Your task to perform on an android device: check the backup settings in the google photos Image 0: 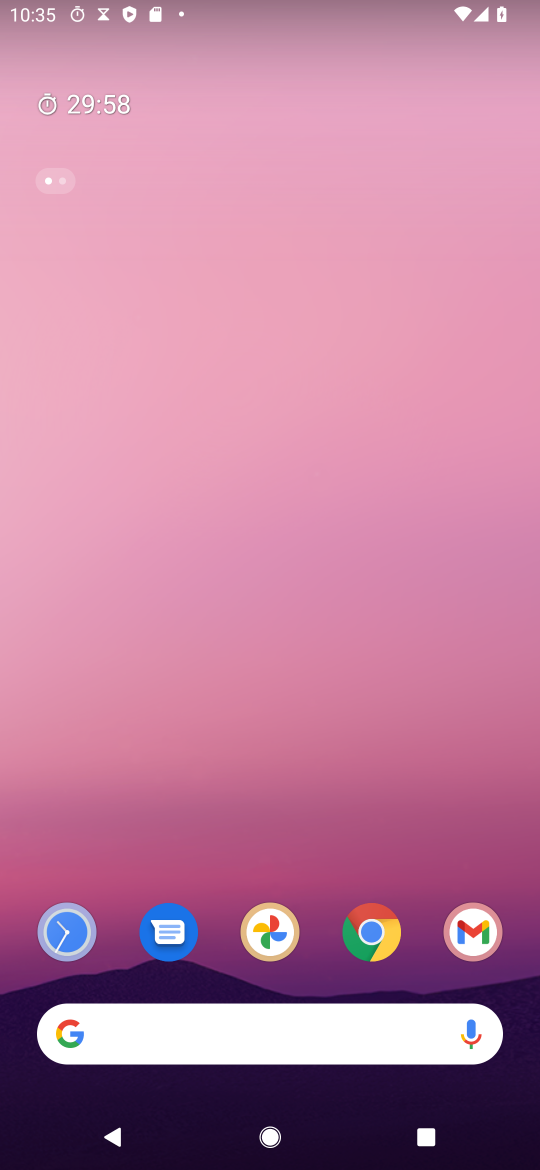
Step 0: drag from (332, 809) to (268, 86)
Your task to perform on an android device: check the backup settings in the google photos Image 1: 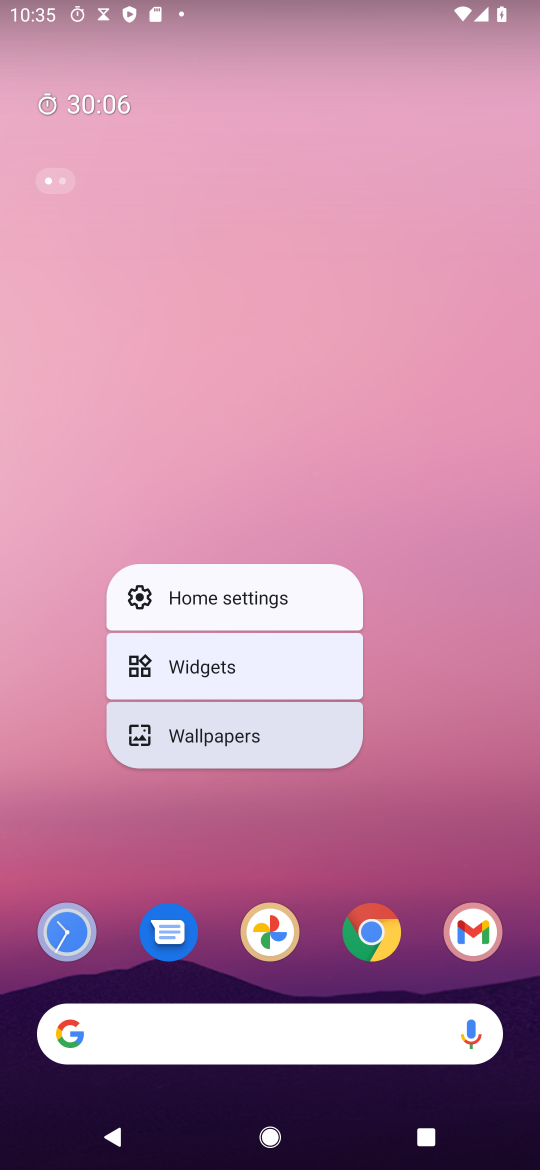
Step 1: click (280, 924)
Your task to perform on an android device: check the backup settings in the google photos Image 2: 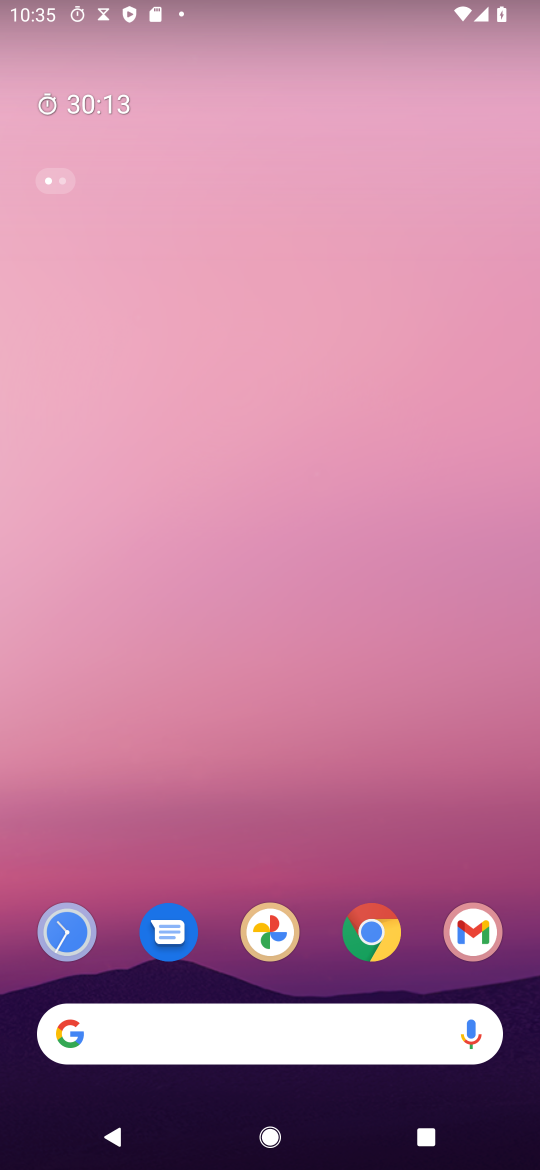
Step 2: click (274, 945)
Your task to perform on an android device: check the backup settings in the google photos Image 3: 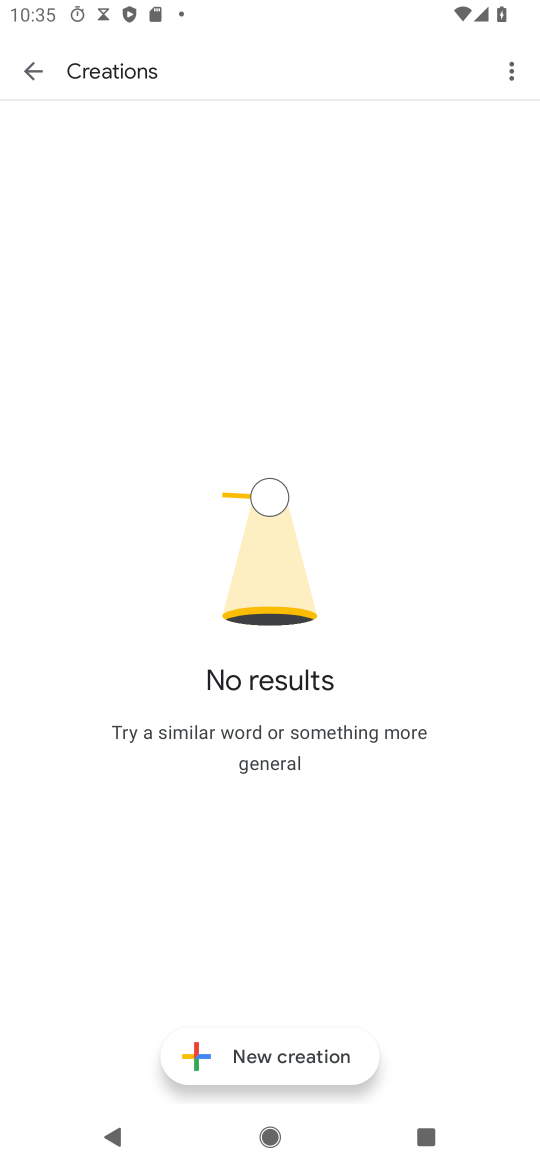
Step 3: click (36, 67)
Your task to perform on an android device: check the backup settings in the google photos Image 4: 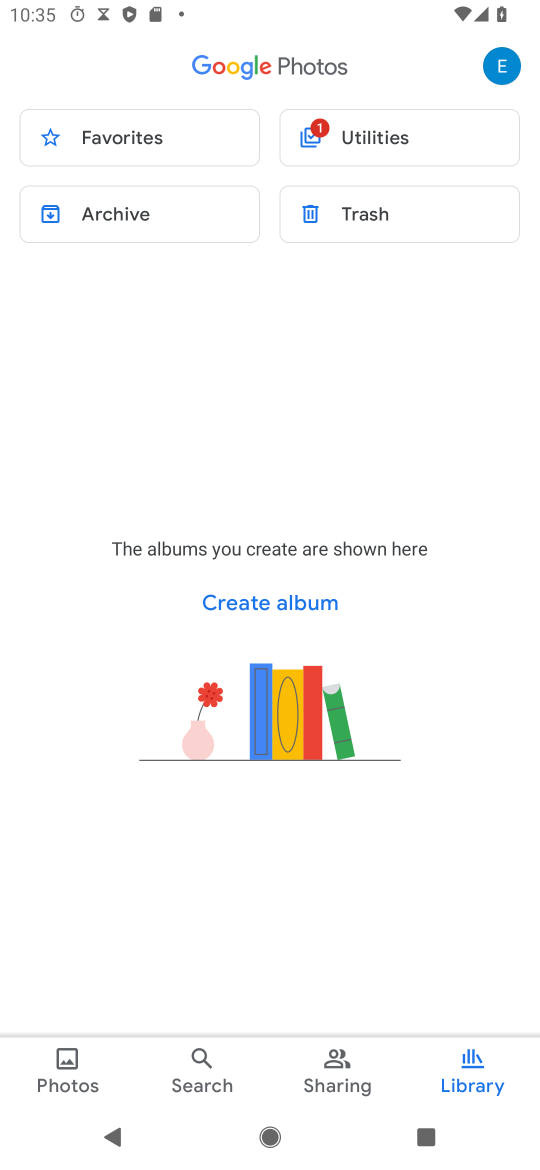
Step 4: click (521, 70)
Your task to perform on an android device: check the backup settings in the google photos Image 5: 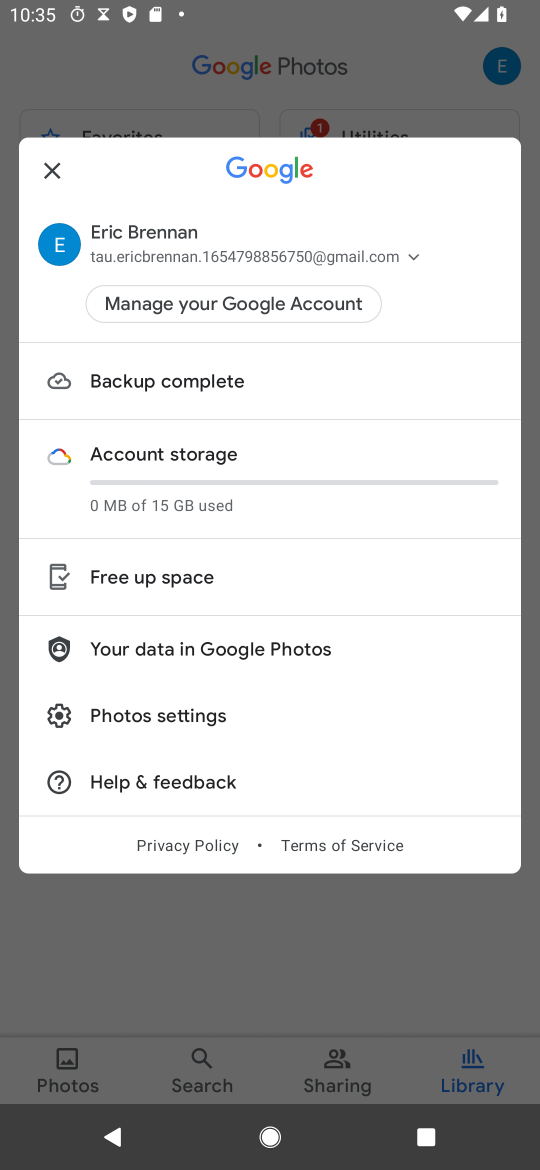
Step 5: click (194, 709)
Your task to perform on an android device: check the backup settings in the google photos Image 6: 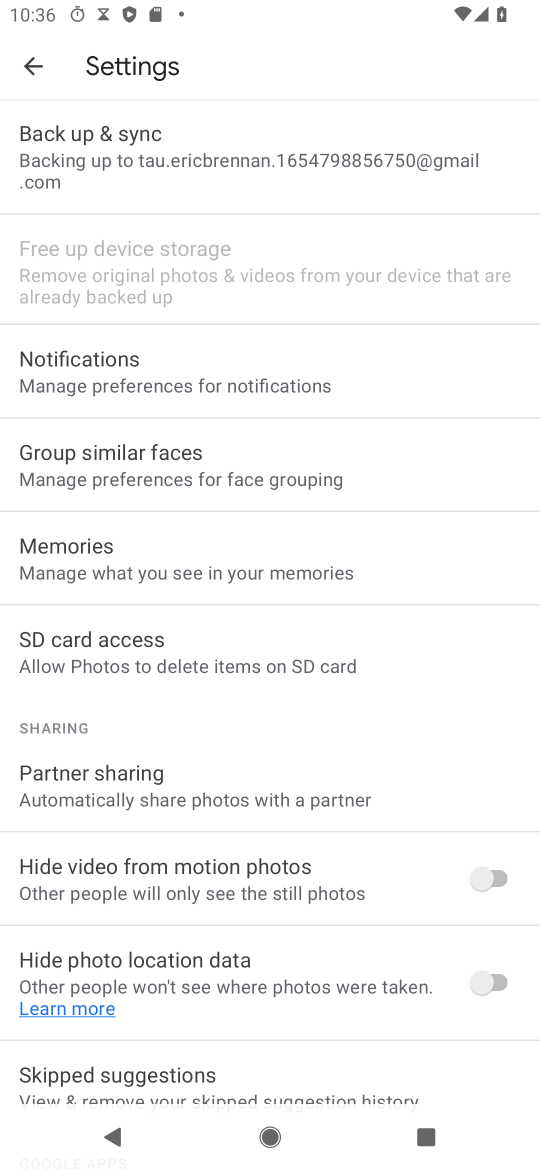
Step 6: click (242, 156)
Your task to perform on an android device: check the backup settings in the google photos Image 7: 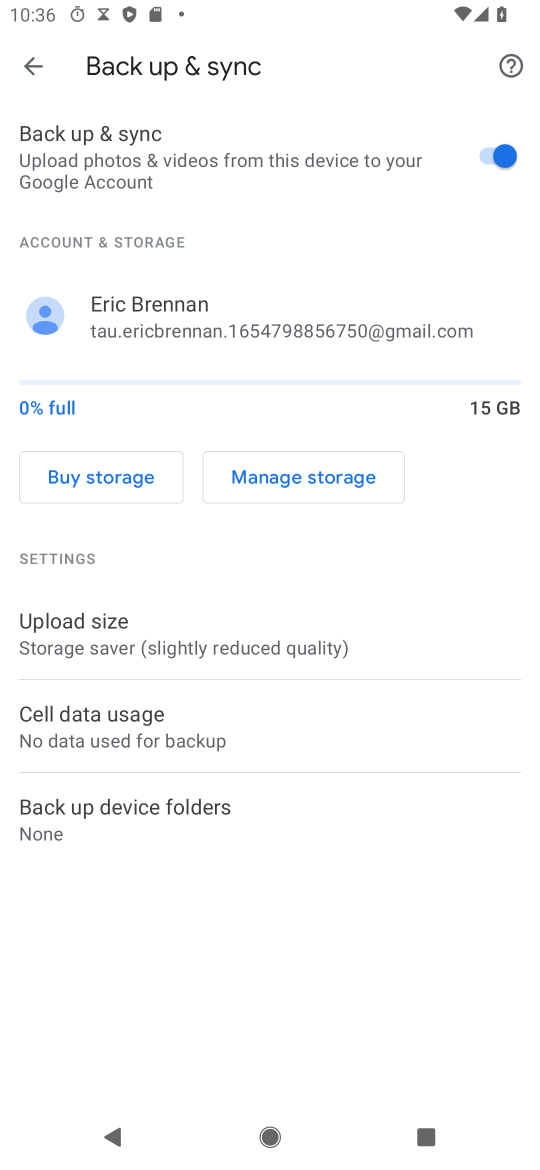
Step 7: task complete